Your task to perform on an android device: What's on my calendar tomorrow? Image 0: 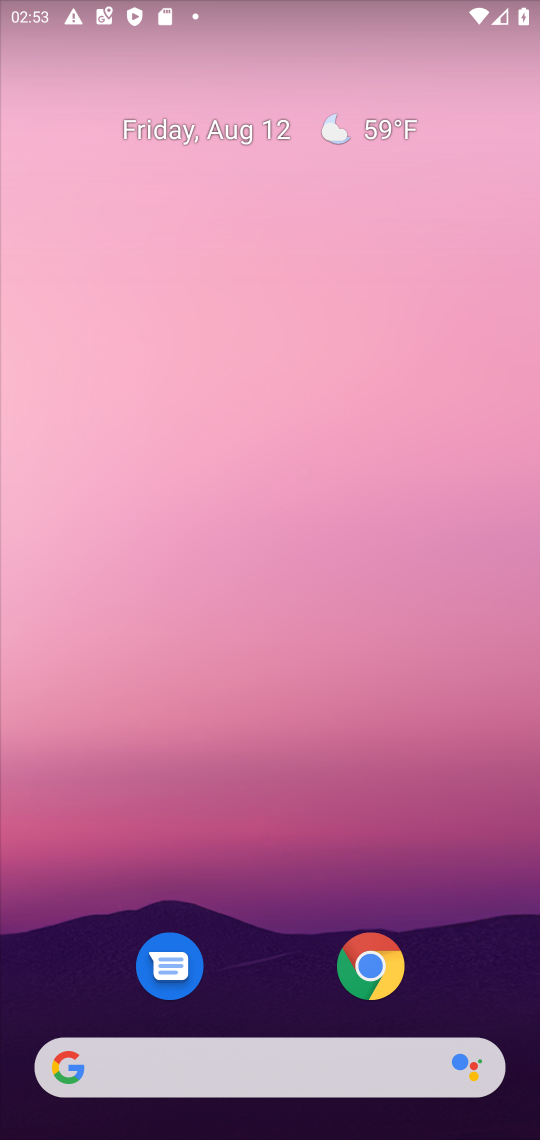
Step 0: drag from (262, 976) to (347, 35)
Your task to perform on an android device: What's on my calendar tomorrow? Image 1: 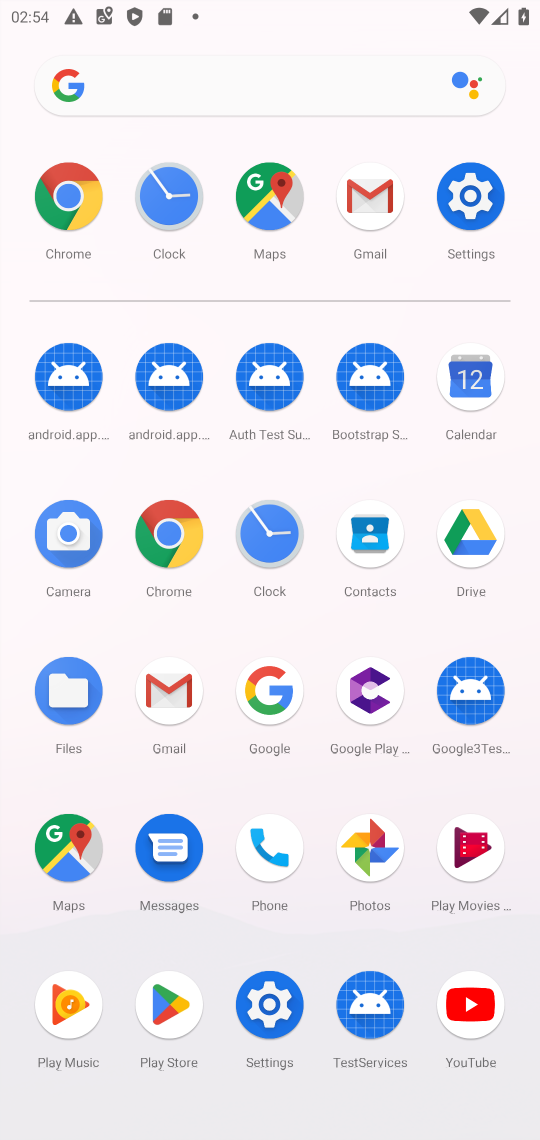
Step 1: click (462, 380)
Your task to perform on an android device: What's on my calendar tomorrow? Image 2: 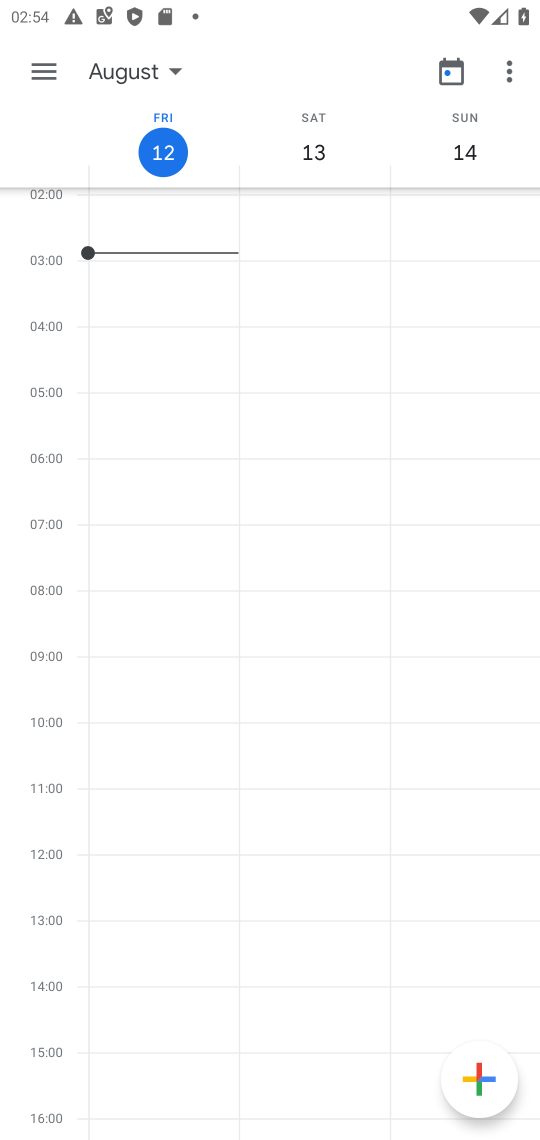
Step 2: click (320, 143)
Your task to perform on an android device: What's on my calendar tomorrow? Image 3: 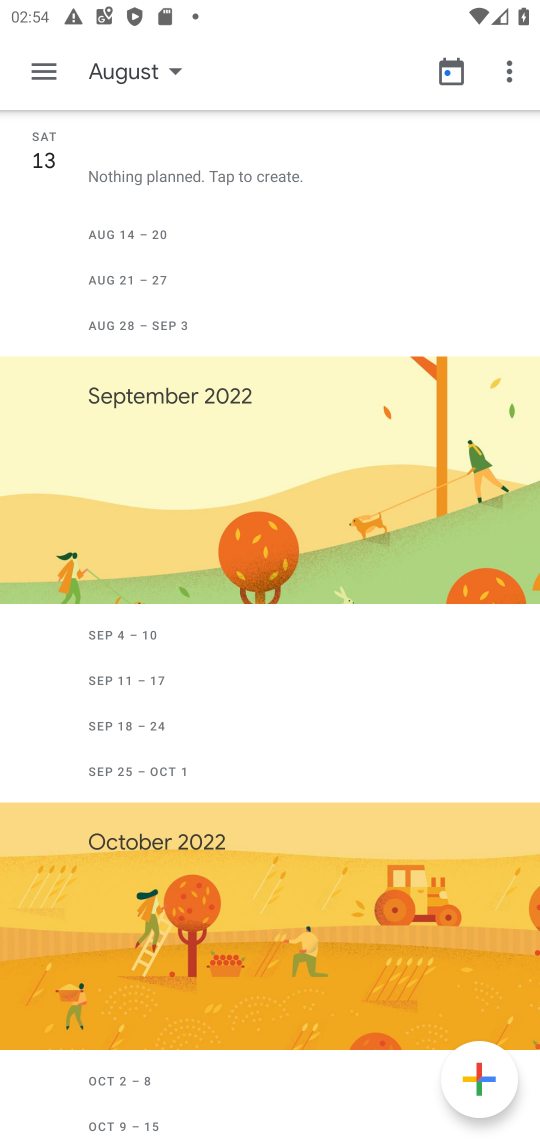
Step 3: task complete